Your task to perform on an android device: search for starred emails in the gmail app Image 0: 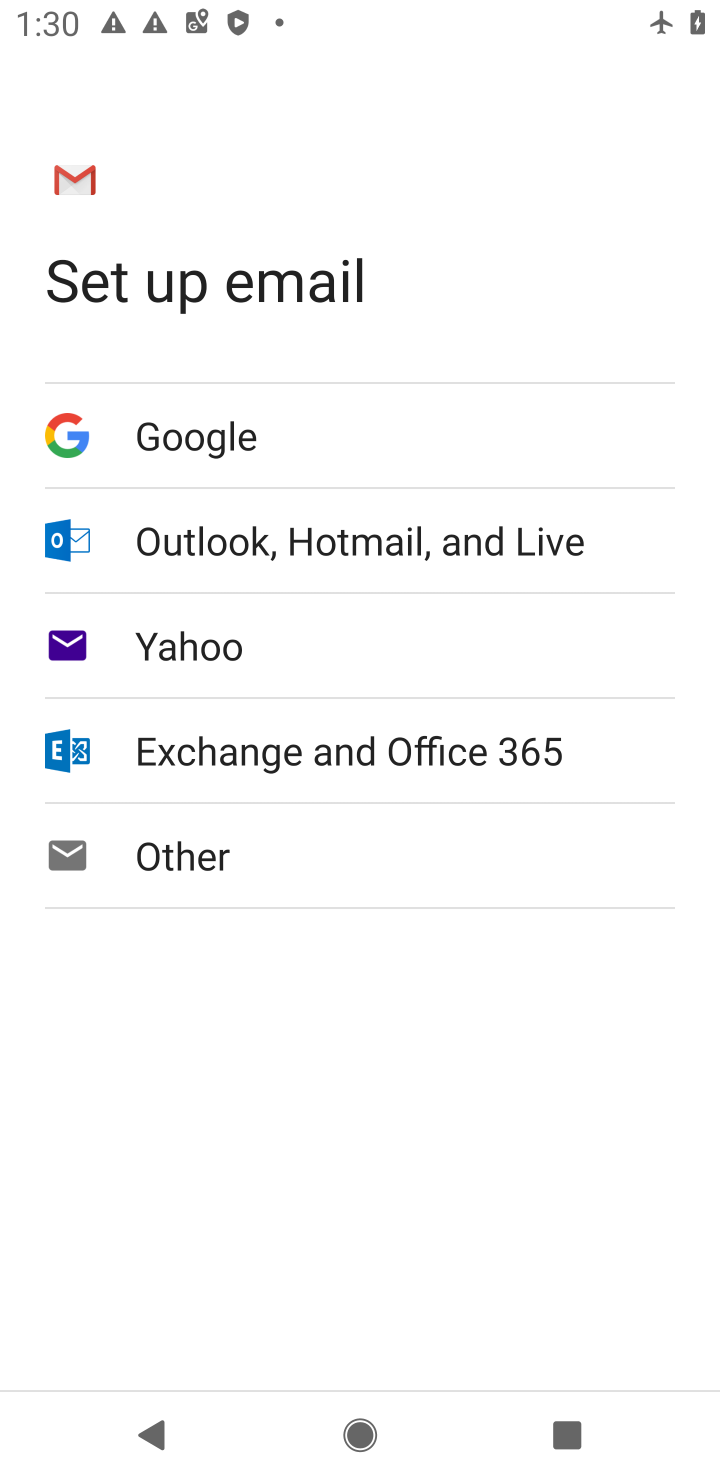
Step 0: press home button
Your task to perform on an android device: search for starred emails in the gmail app Image 1: 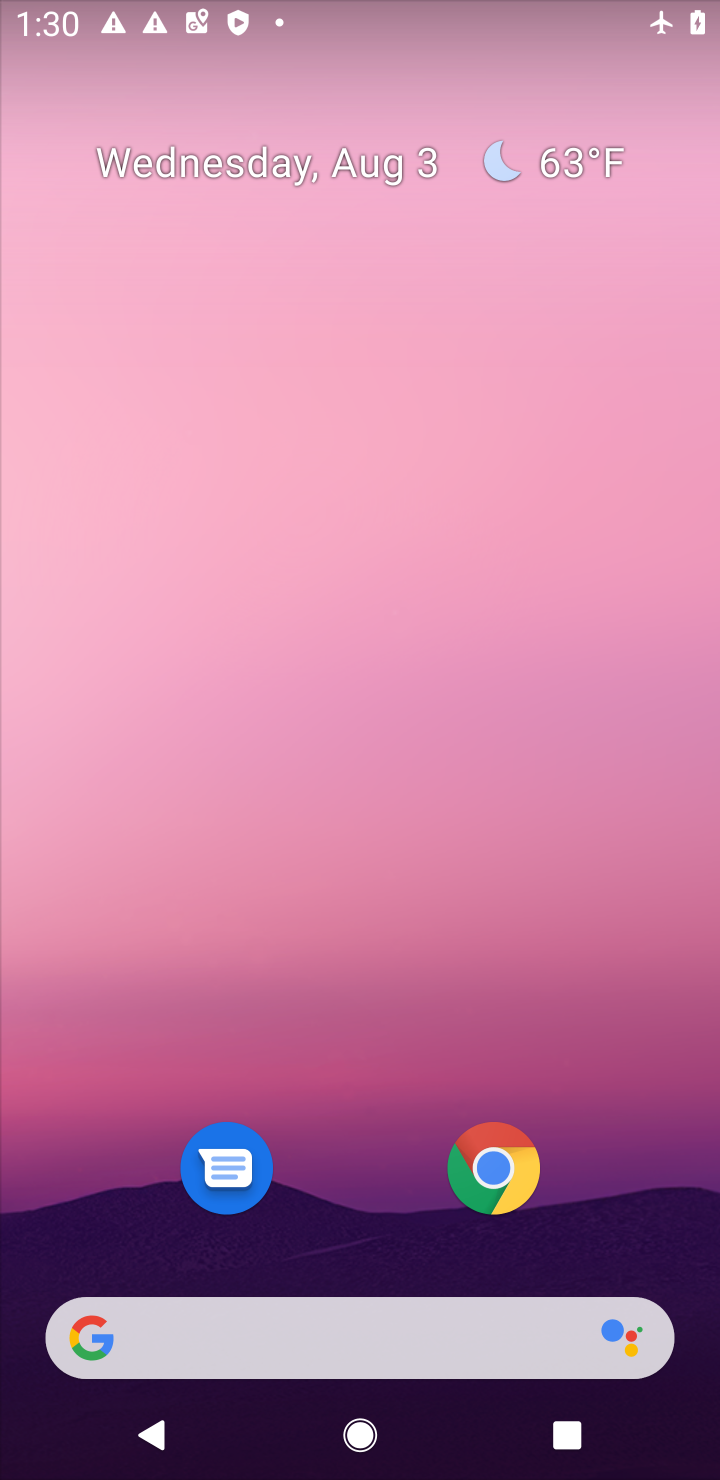
Step 1: drag from (651, 1156) to (625, 126)
Your task to perform on an android device: search for starred emails in the gmail app Image 2: 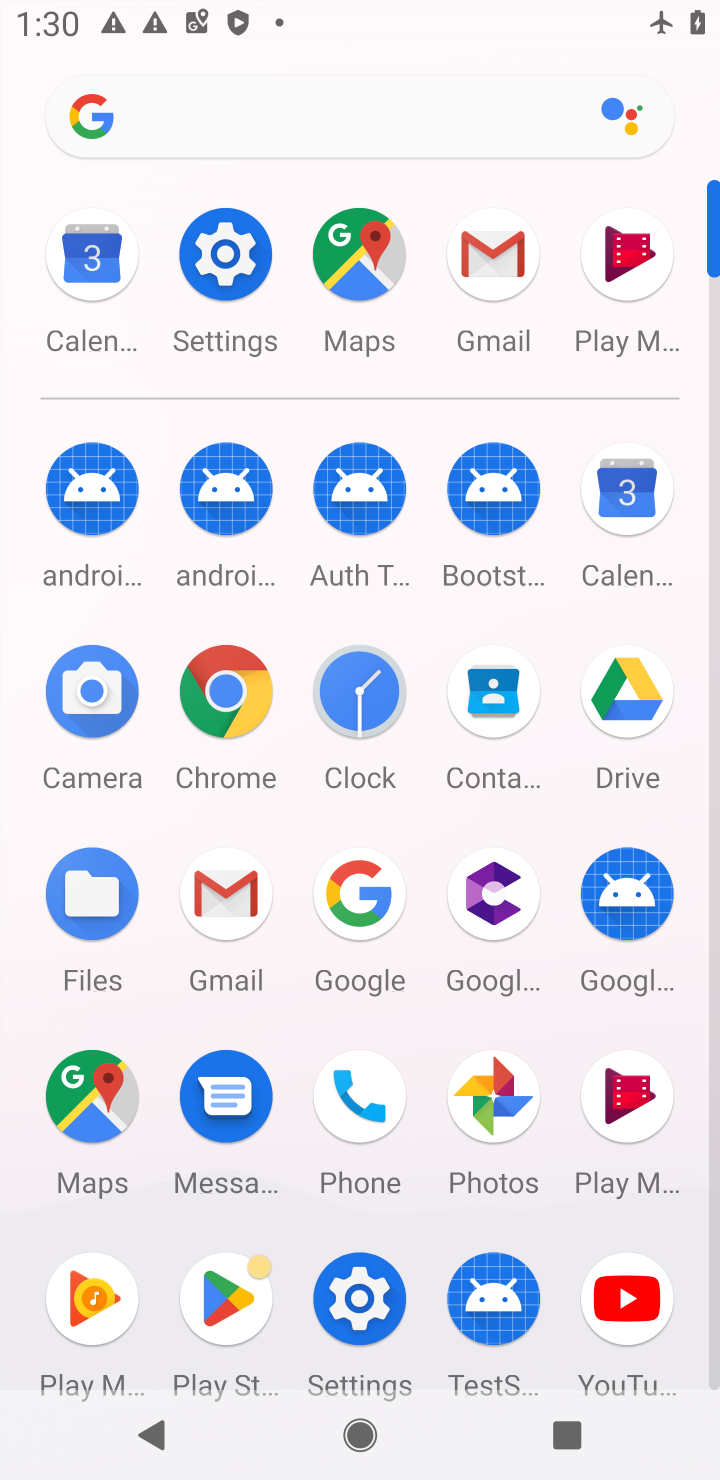
Step 2: click (221, 889)
Your task to perform on an android device: search for starred emails in the gmail app Image 3: 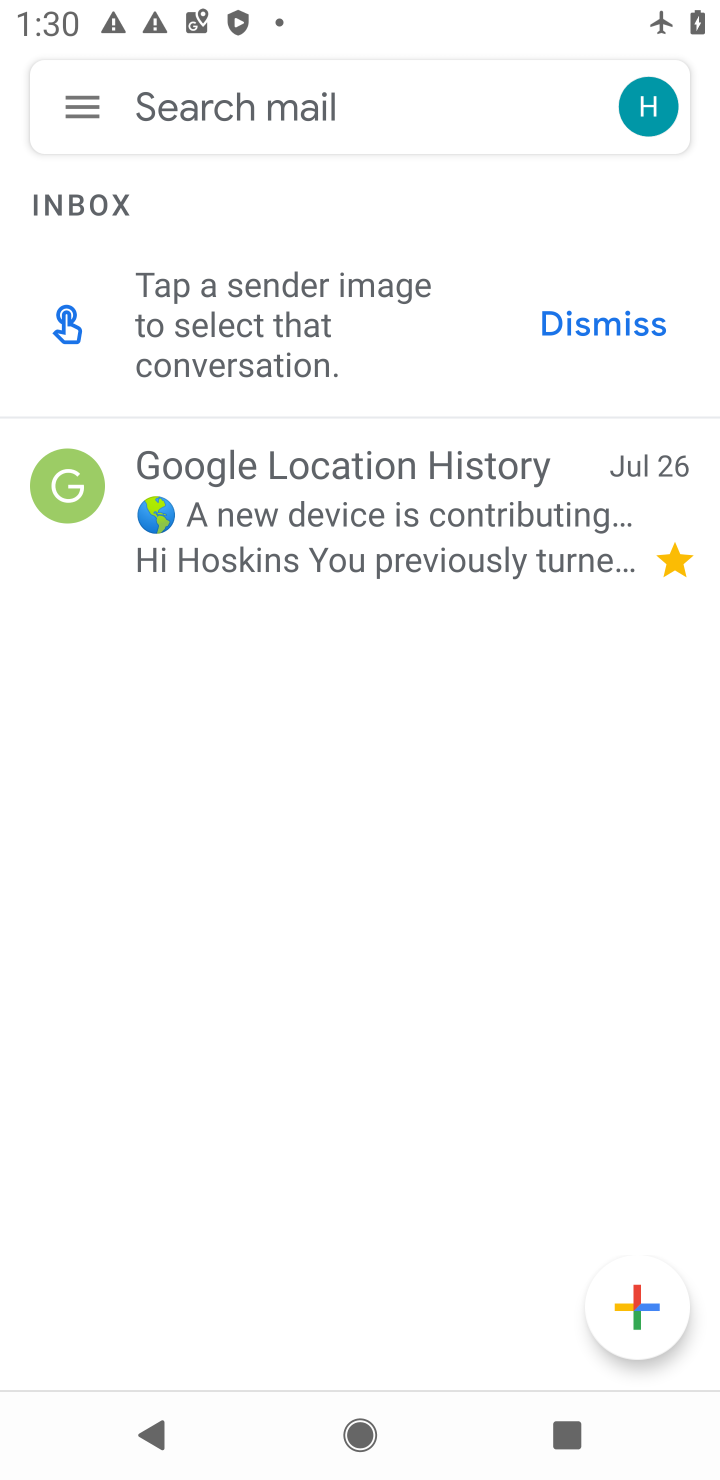
Step 3: click (73, 118)
Your task to perform on an android device: search for starred emails in the gmail app Image 4: 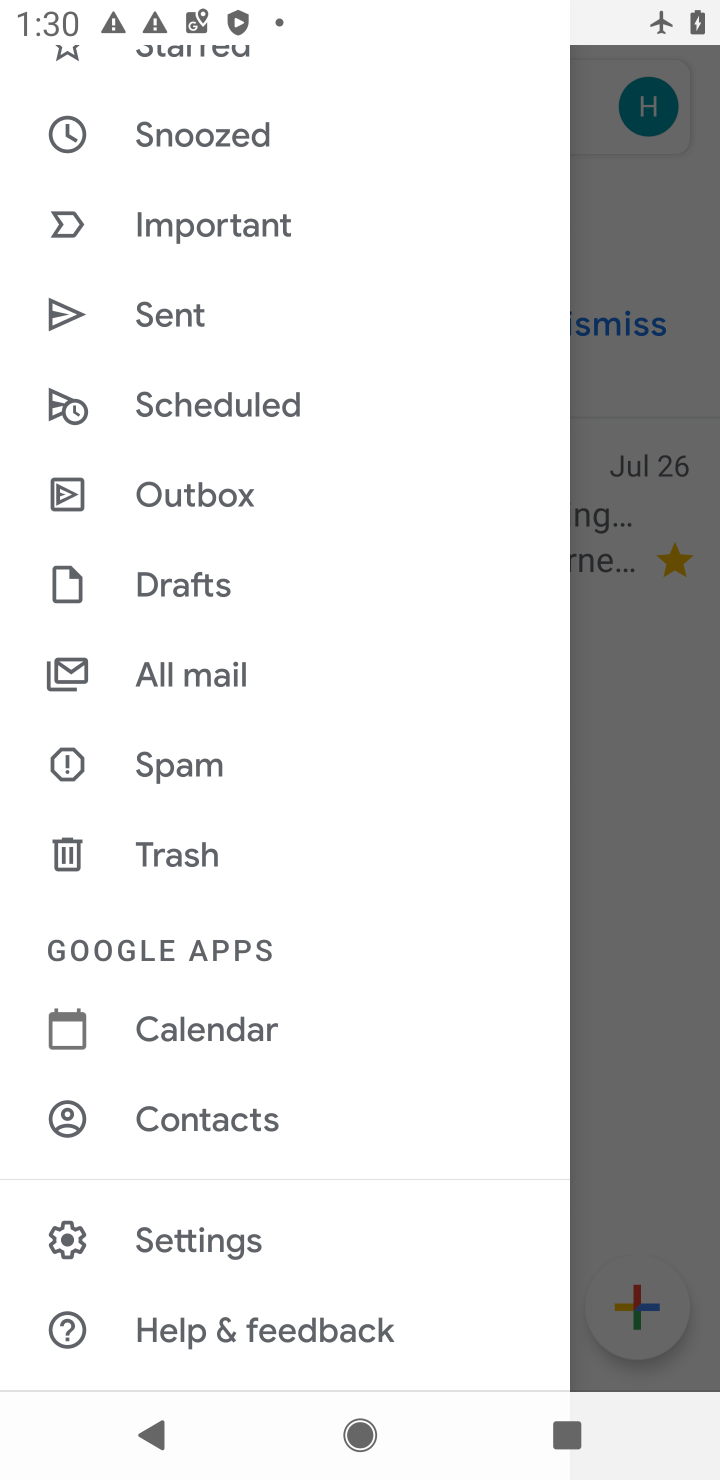
Step 4: drag from (349, 388) to (357, 844)
Your task to perform on an android device: search for starred emails in the gmail app Image 5: 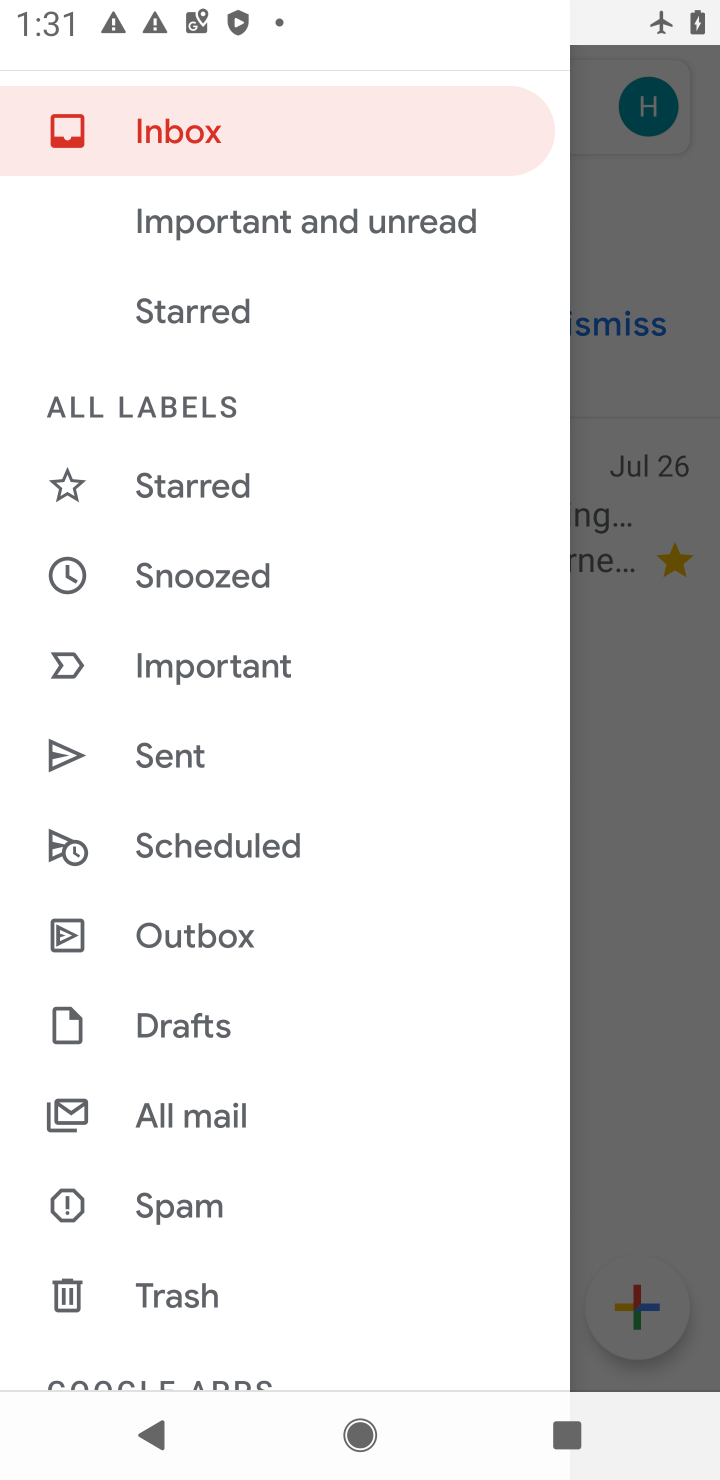
Step 5: click (208, 487)
Your task to perform on an android device: search for starred emails in the gmail app Image 6: 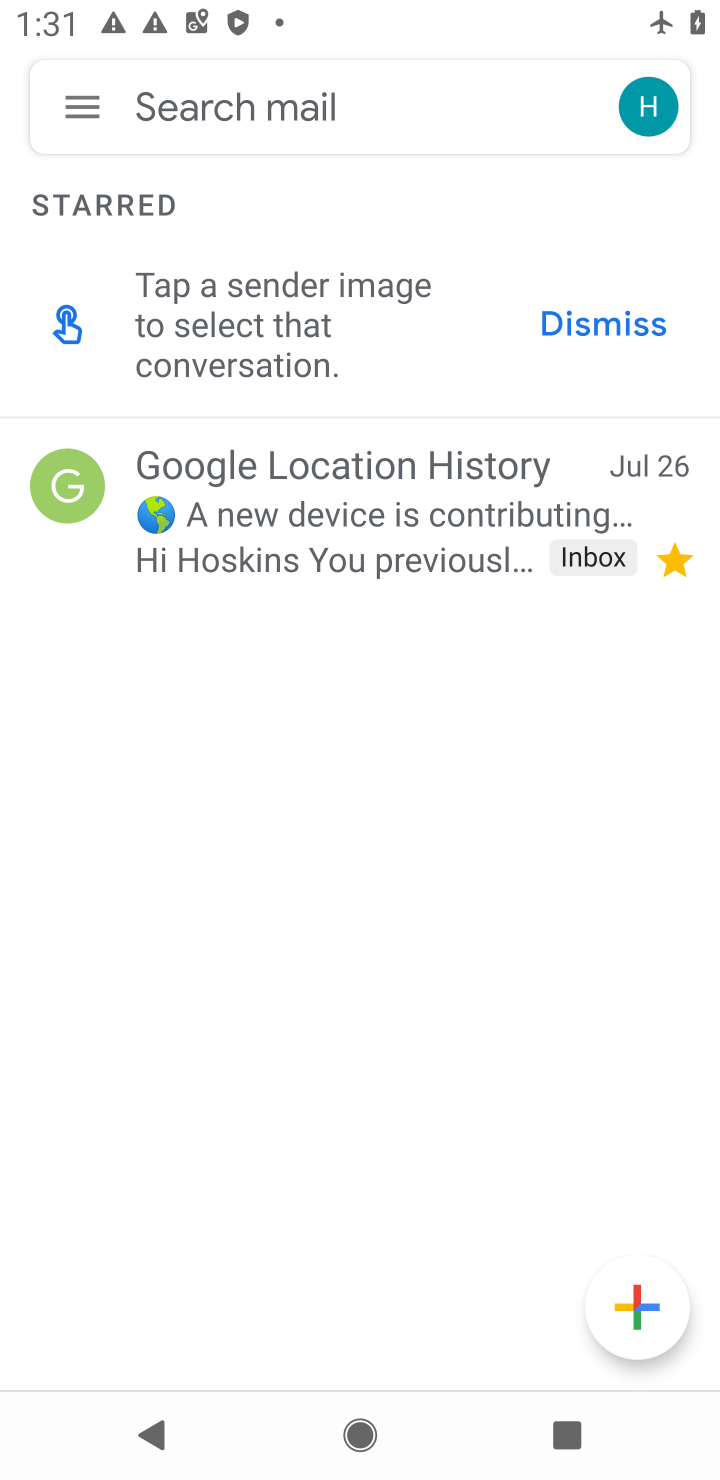
Step 6: task complete